Your task to perform on an android device: Go to settings Image 0: 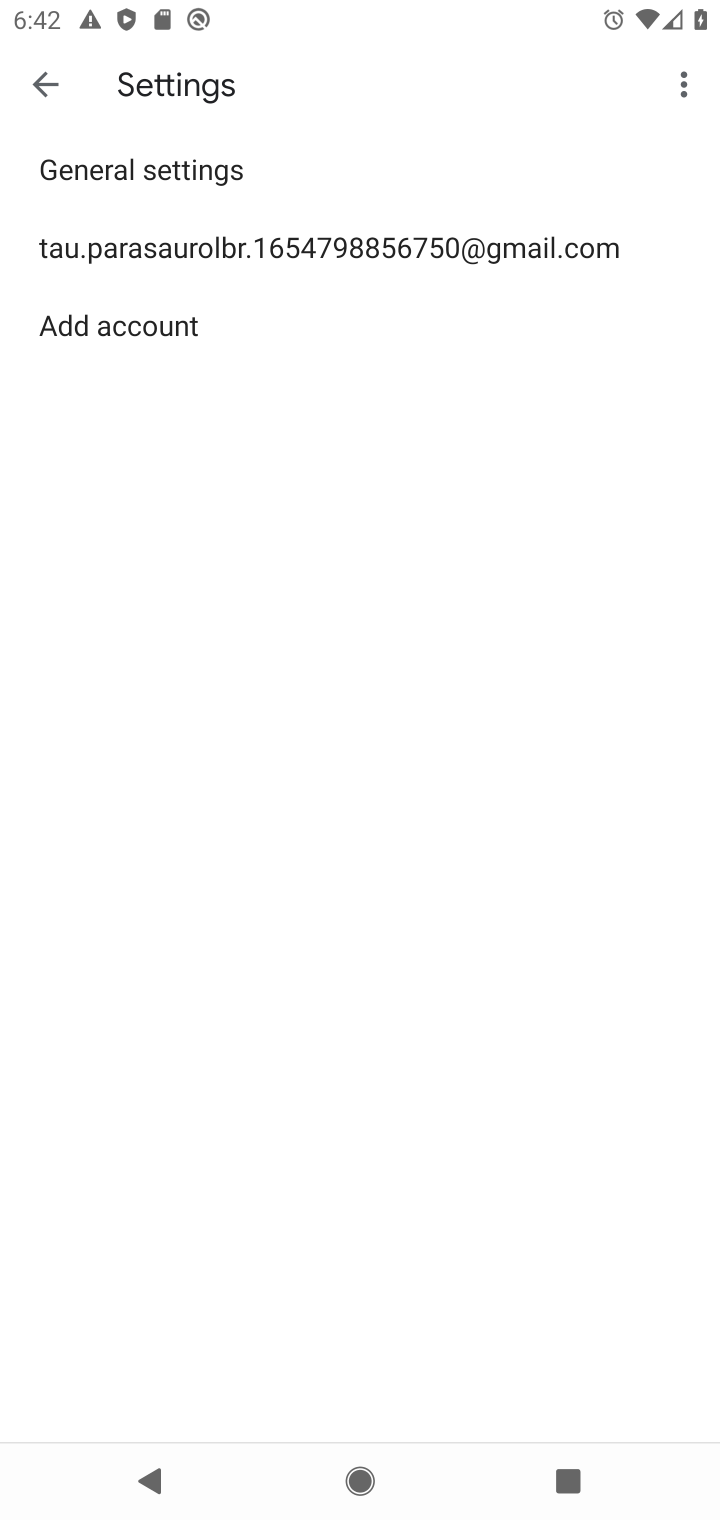
Step 0: press home button
Your task to perform on an android device: Go to settings Image 1: 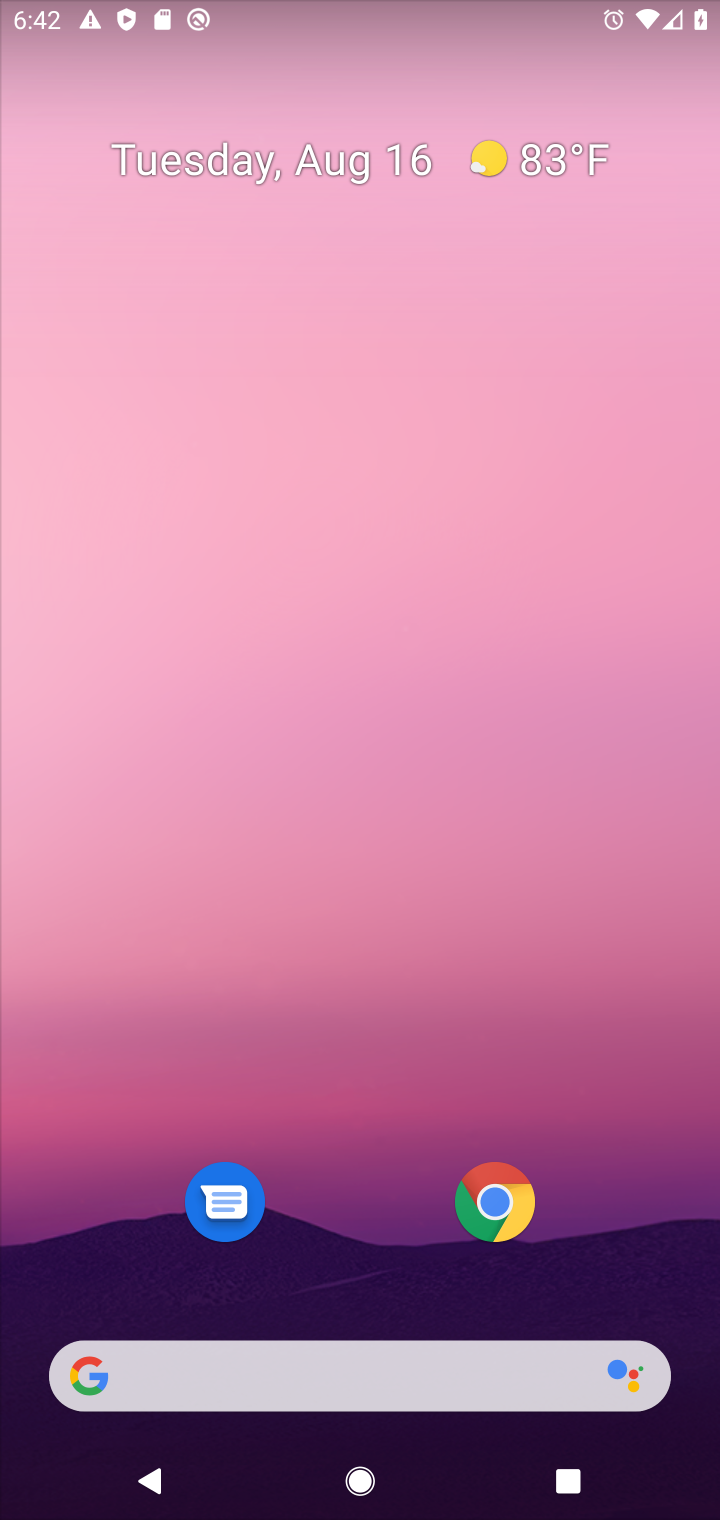
Step 1: drag from (637, 1232) to (245, 43)
Your task to perform on an android device: Go to settings Image 2: 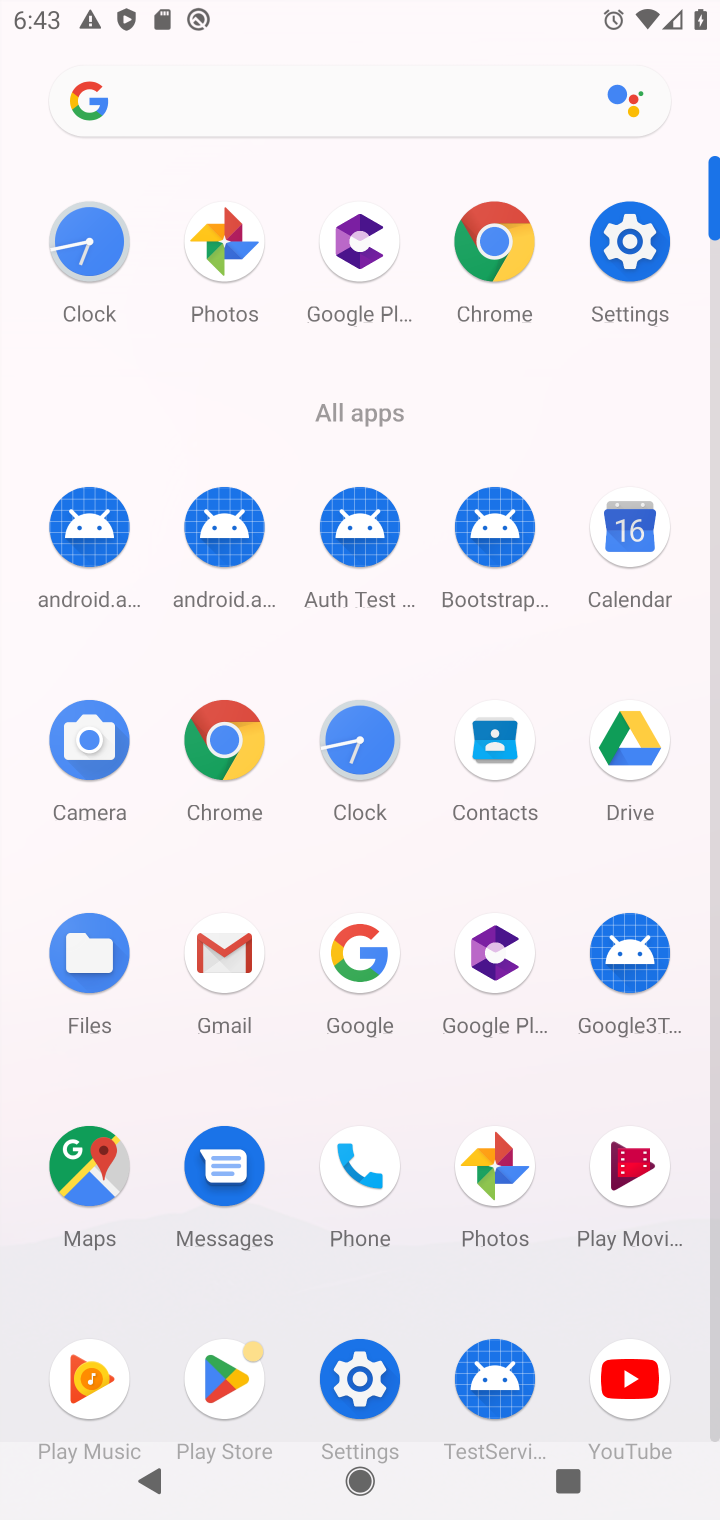
Step 2: click (355, 1387)
Your task to perform on an android device: Go to settings Image 3: 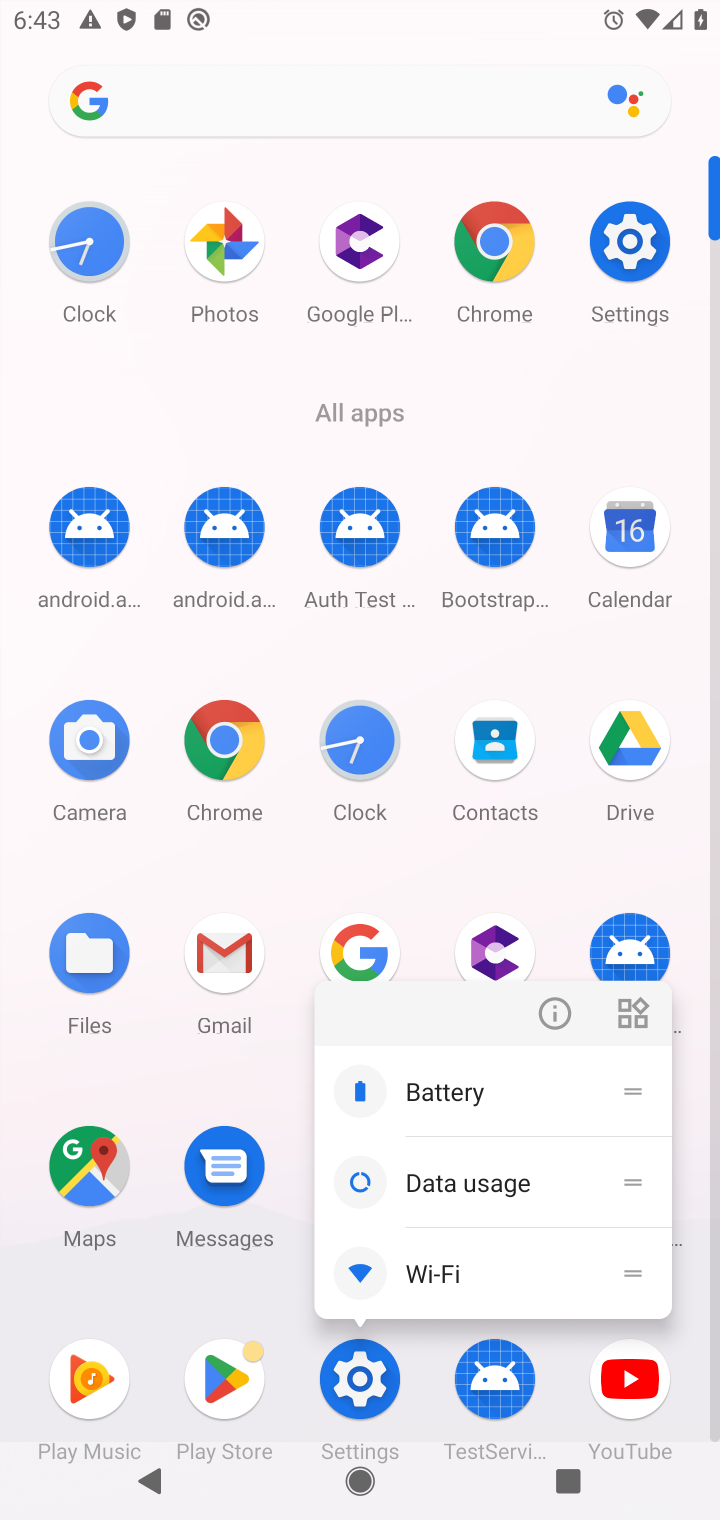
Step 3: click (359, 1387)
Your task to perform on an android device: Go to settings Image 4: 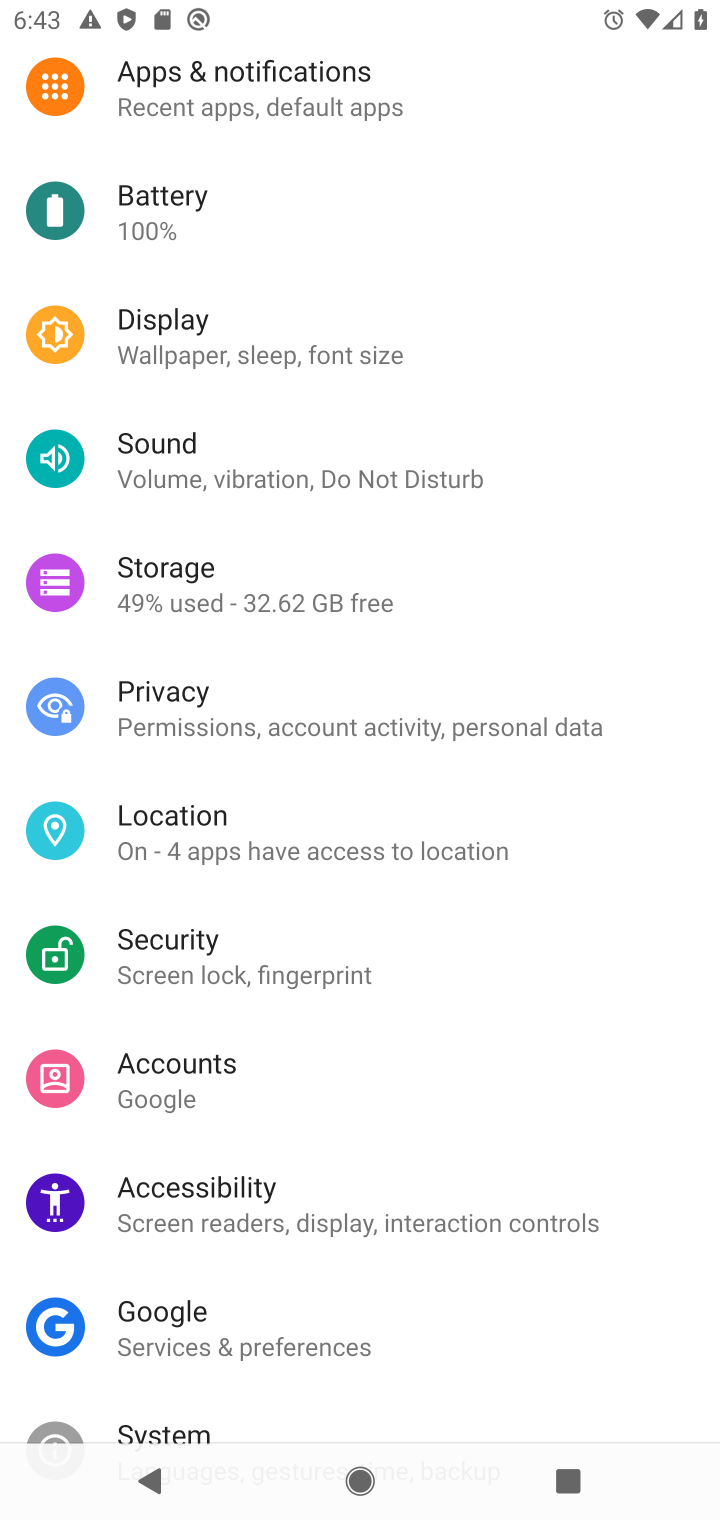
Step 4: task complete